Your task to perform on an android device: Show me recent news Image 0: 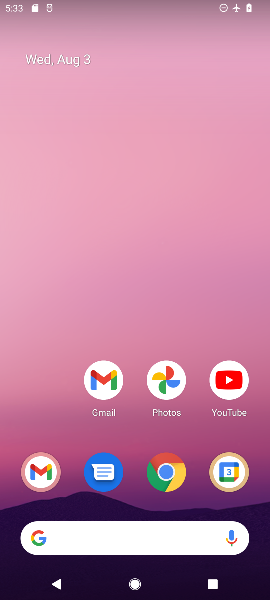
Step 0: drag from (259, 513) to (136, 12)
Your task to perform on an android device: Show me recent news Image 1: 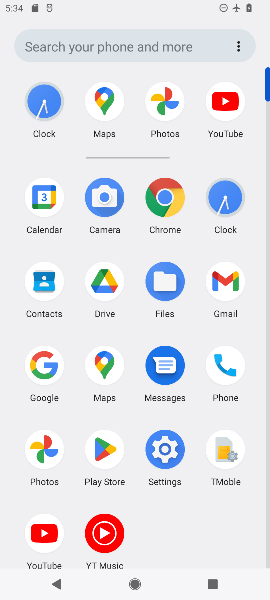
Step 1: click (45, 365)
Your task to perform on an android device: Show me recent news Image 2: 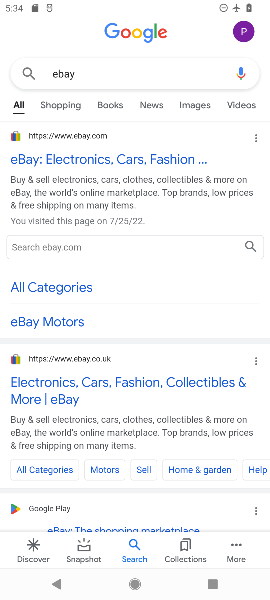
Step 2: press back button
Your task to perform on an android device: Show me recent news Image 3: 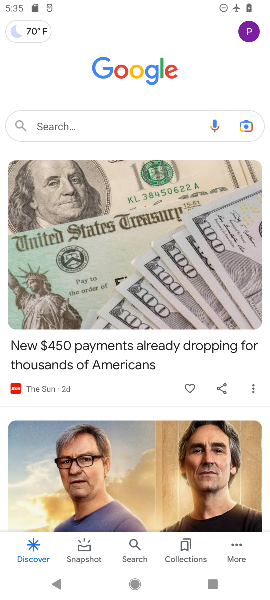
Step 3: click (50, 123)
Your task to perform on an android device: Show me recent news Image 4: 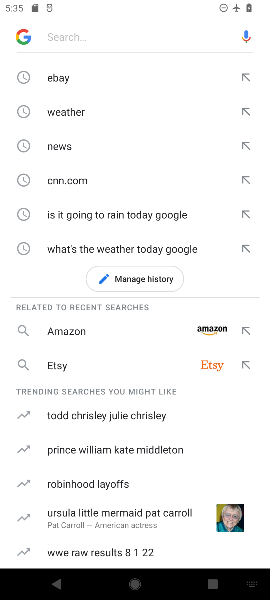
Step 4: type "Show me recent news"
Your task to perform on an android device: Show me recent news Image 5: 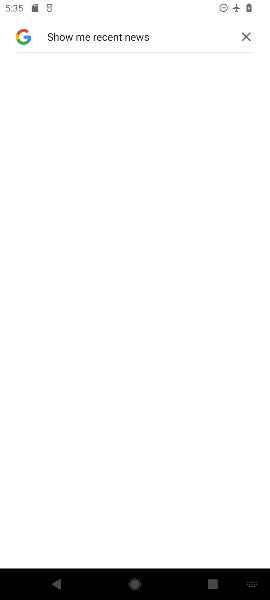
Step 5: task complete